Your task to perform on an android device: Search for seafood restaurants on Google Maps Image 0: 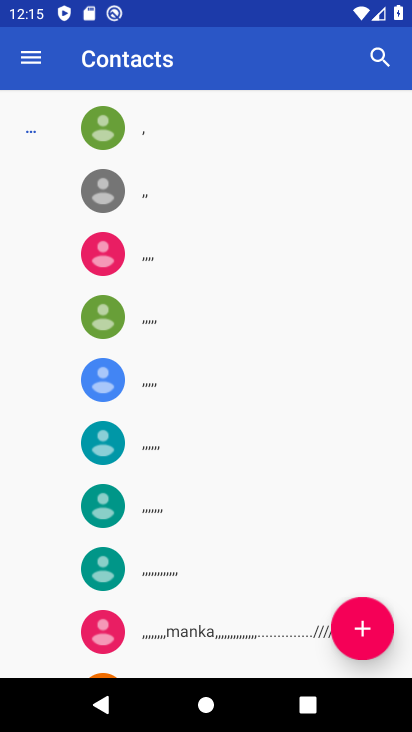
Step 0: press home button
Your task to perform on an android device: Search for seafood restaurants on Google Maps Image 1: 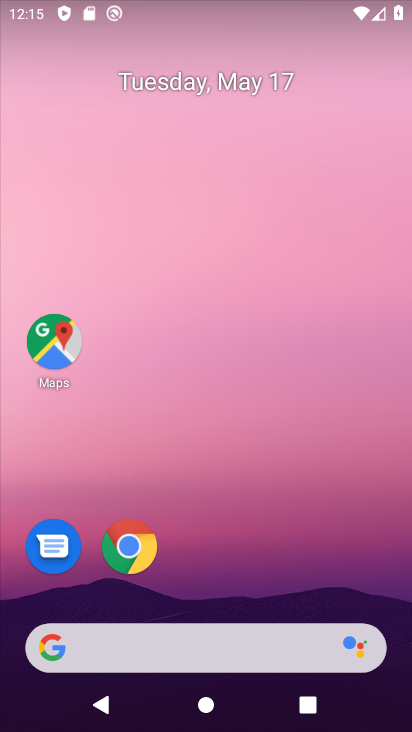
Step 1: click (52, 343)
Your task to perform on an android device: Search for seafood restaurants on Google Maps Image 2: 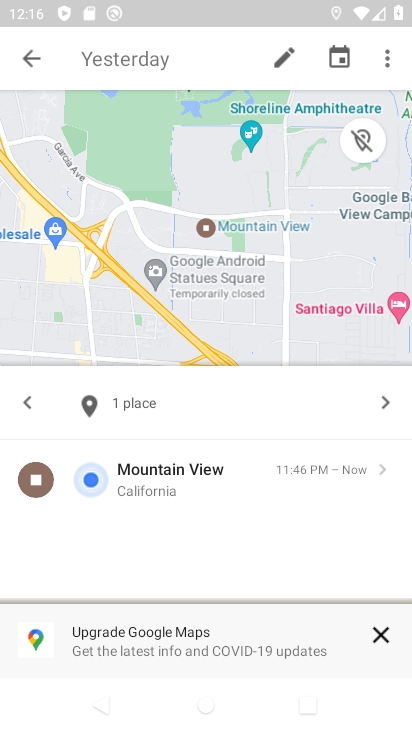
Step 2: press back button
Your task to perform on an android device: Search for seafood restaurants on Google Maps Image 3: 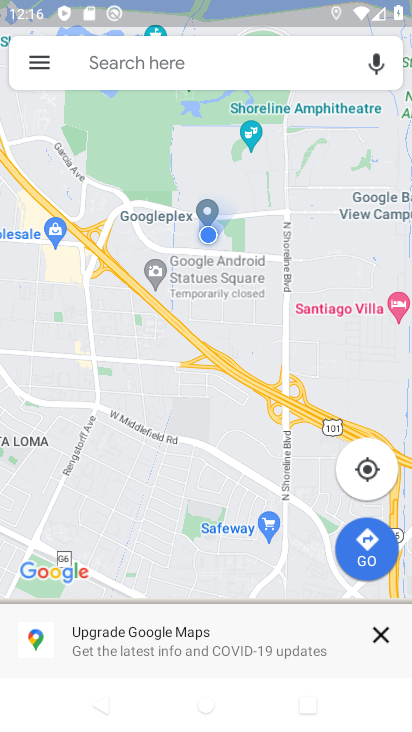
Step 3: click (122, 61)
Your task to perform on an android device: Search for seafood restaurants on Google Maps Image 4: 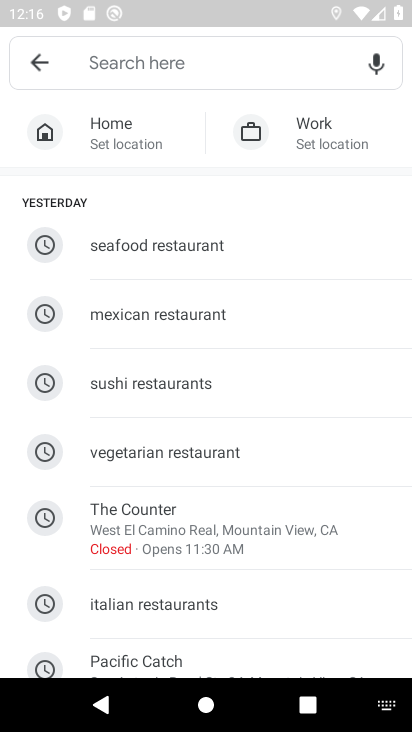
Step 4: type "seafood restaurants"
Your task to perform on an android device: Search for seafood restaurants on Google Maps Image 5: 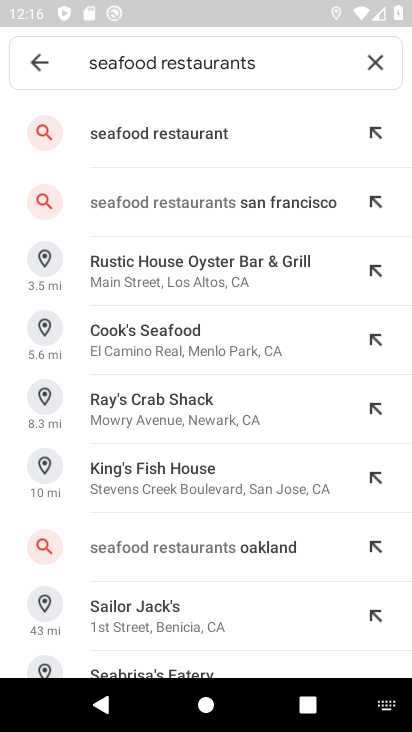
Step 5: click (195, 125)
Your task to perform on an android device: Search for seafood restaurants on Google Maps Image 6: 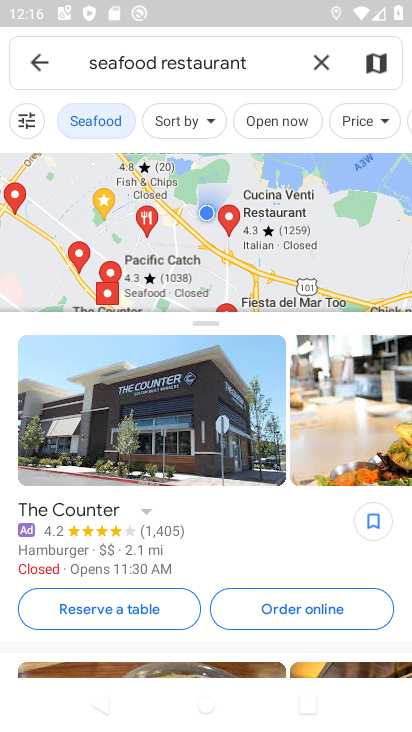
Step 6: task complete